Your task to perform on an android device: Is it going to rain today? Image 0: 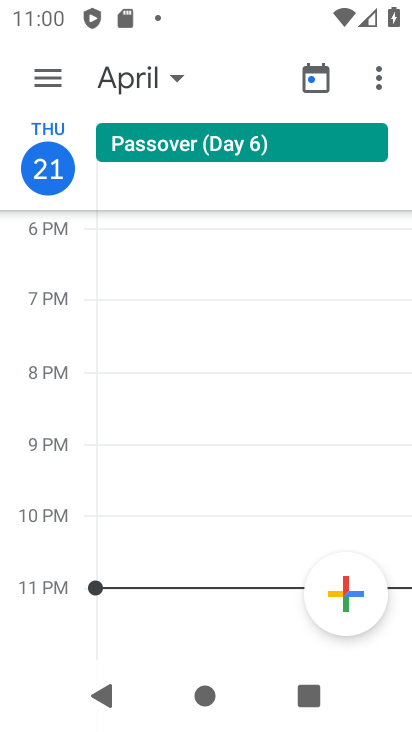
Step 0: press home button
Your task to perform on an android device: Is it going to rain today? Image 1: 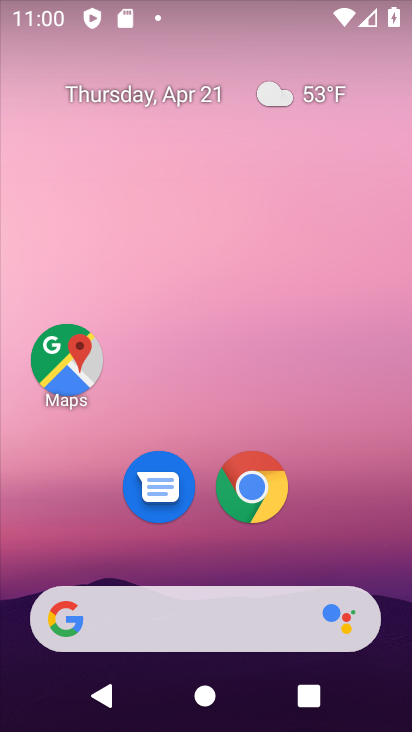
Step 1: click (272, 108)
Your task to perform on an android device: Is it going to rain today? Image 2: 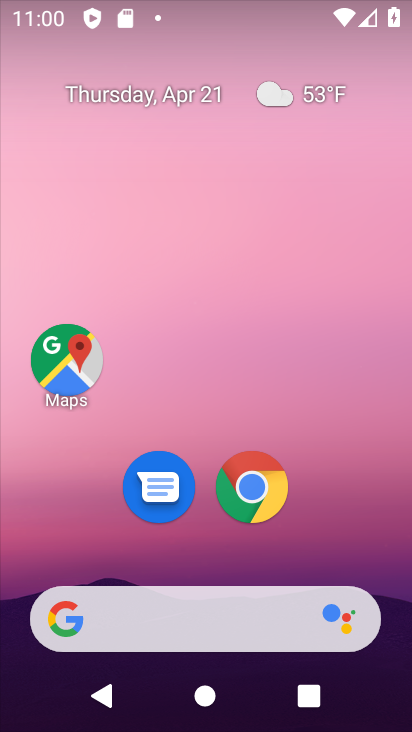
Step 2: click (273, 102)
Your task to perform on an android device: Is it going to rain today? Image 3: 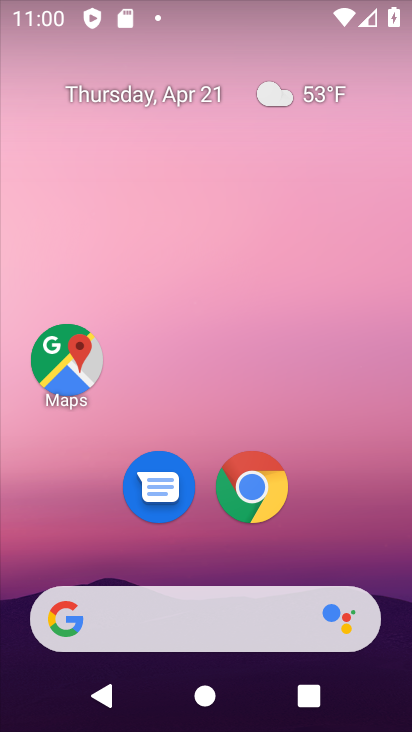
Step 3: click (267, 100)
Your task to perform on an android device: Is it going to rain today? Image 4: 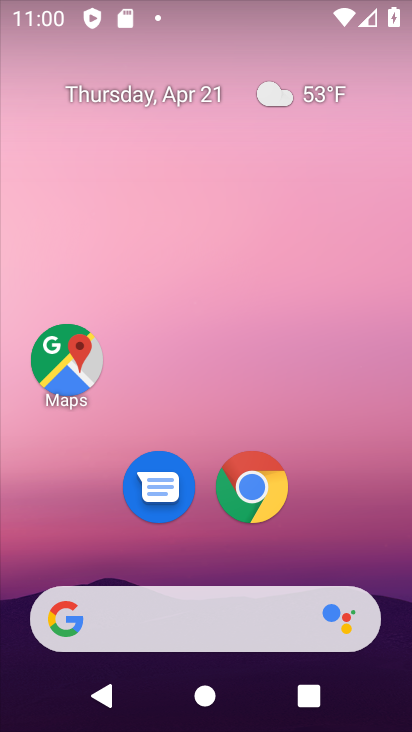
Step 4: click (267, 99)
Your task to perform on an android device: Is it going to rain today? Image 5: 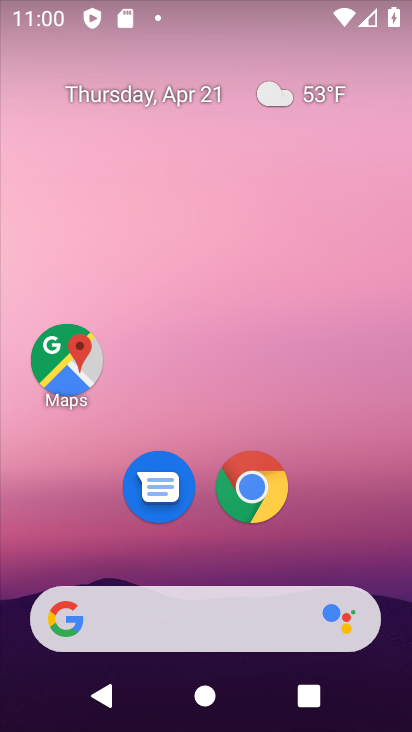
Step 5: click (304, 96)
Your task to perform on an android device: Is it going to rain today? Image 6: 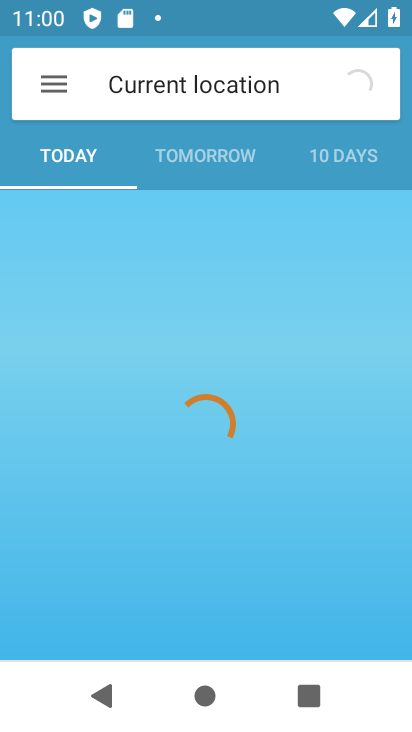
Step 6: click (304, 93)
Your task to perform on an android device: Is it going to rain today? Image 7: 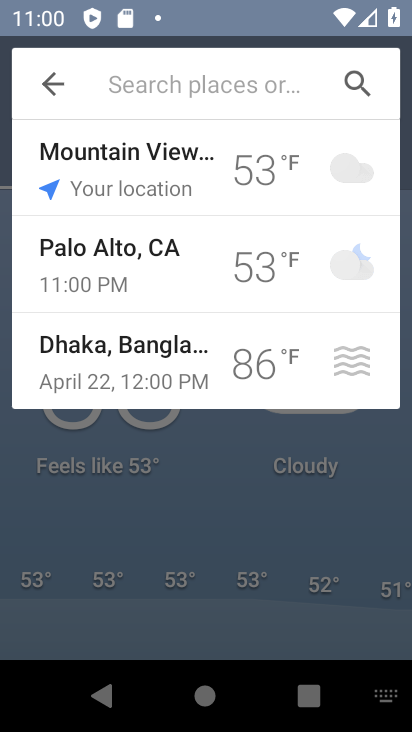
Step 7: click (47, 81)
Your task to perform on an android device: Is it going to rain today? Image 8: 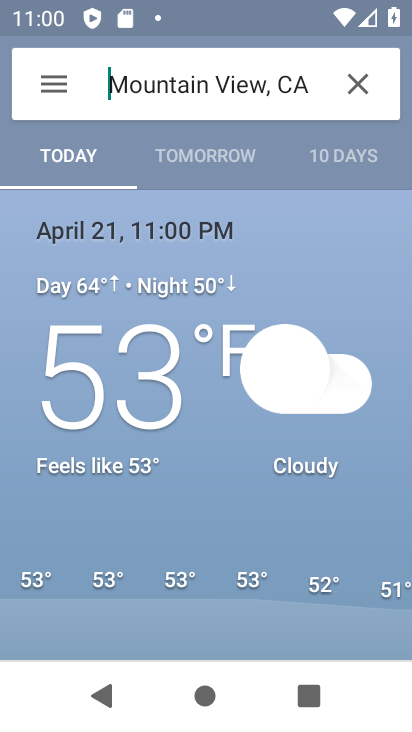
Step 8: task complete